Your task to perform on an android device: What's the weather going to be tomorrow? Image 0: 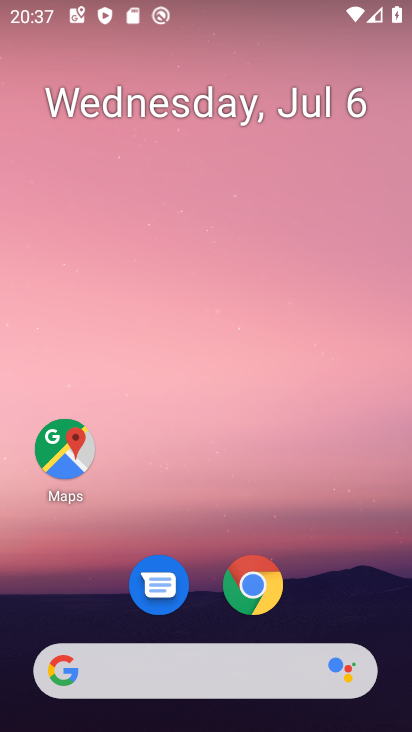
Step 0: click (171, 681)
Your task to perform on an android device: What's the weather going to be tomorrow? Image 1: 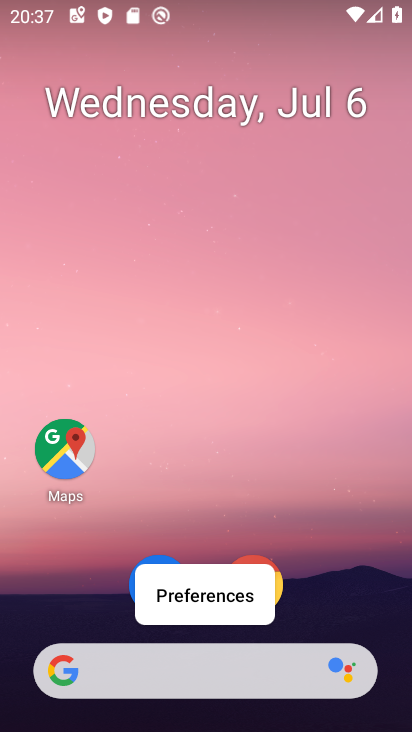
Step 1: click (122, 667)
Your task to perform on an android device: What's the weather going to be tomorrow? Image 2: 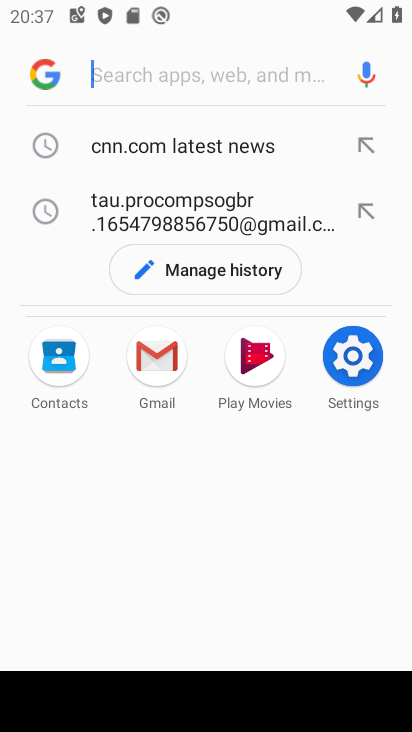
Step 2: click (46, 70)
Your task to perform on an android device: What's the weather going to be tomorrow? Image 3: 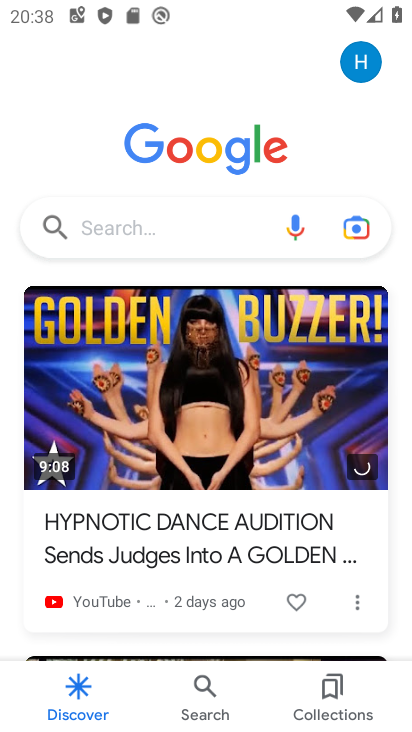
Step 3: click (107, 215)
Your task to perform on an android device: What's the weather going to be tomorrow? Image 4: 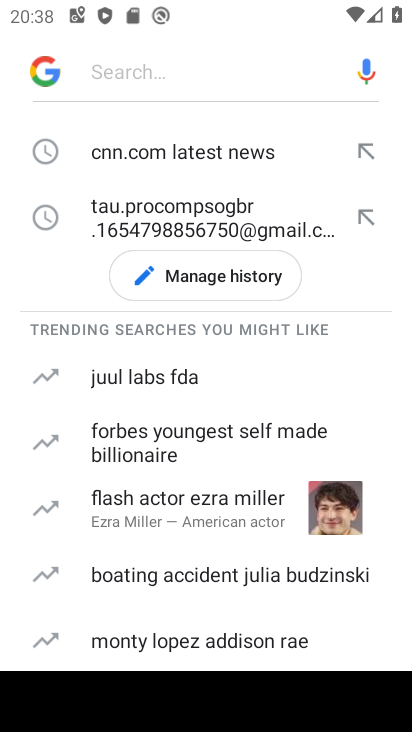
Step 4: type "weather"
Your task to perform on an android device: What's the weather going to be tomorrow? Image 5: 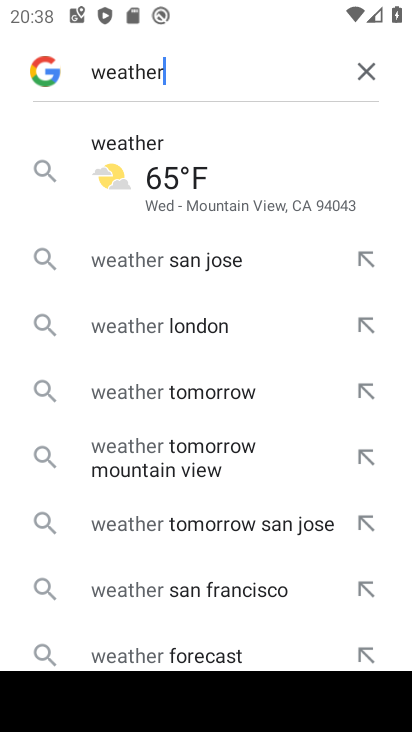
Step 5: click (247, 198)
Your task to perform on an android device: What's the weather going to be tomorrow? Image 6: 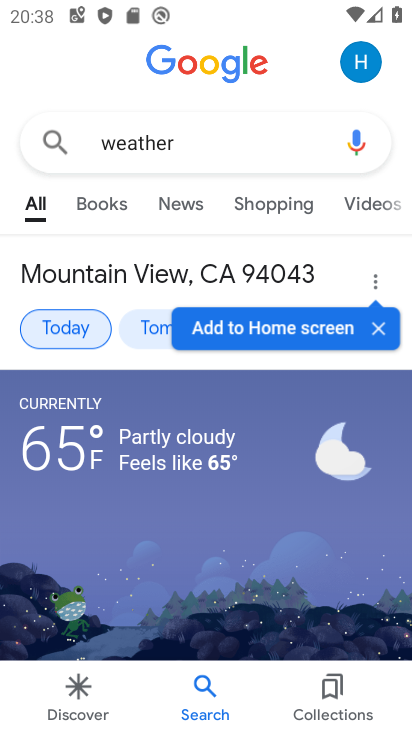
Step 6: click (82, 330)
Your task to perform on an android device: What's the weather going to be tomorrow? Image 7: 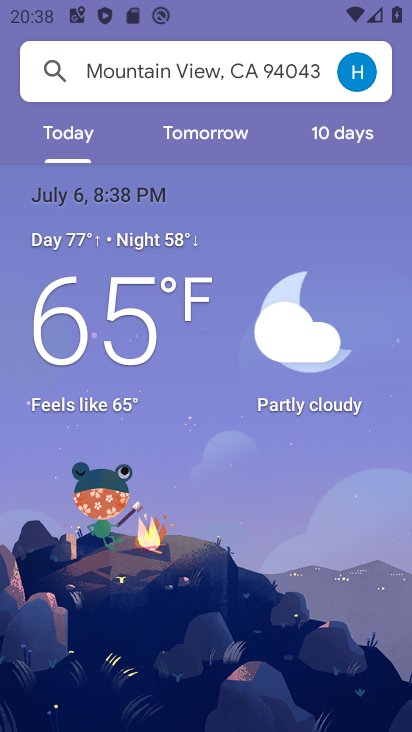
Step 7: click (197, 135)
Your task to perform on an android device: What's the weather going to be tomorrow? Image 8: 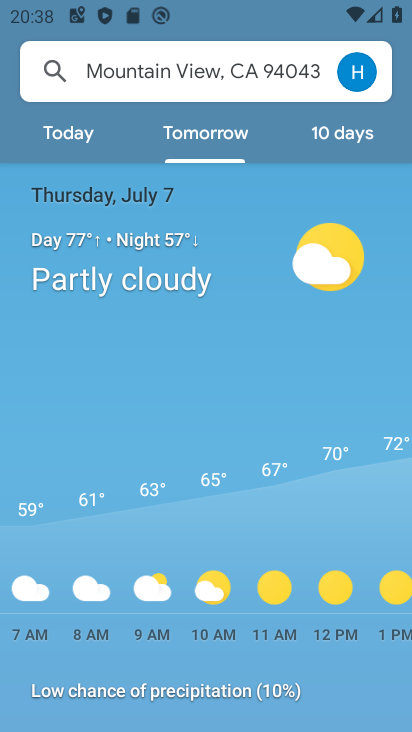
Step 8: task complete